Your task to perform on an android device: Search for pizza restaurants on Maps Image 0: 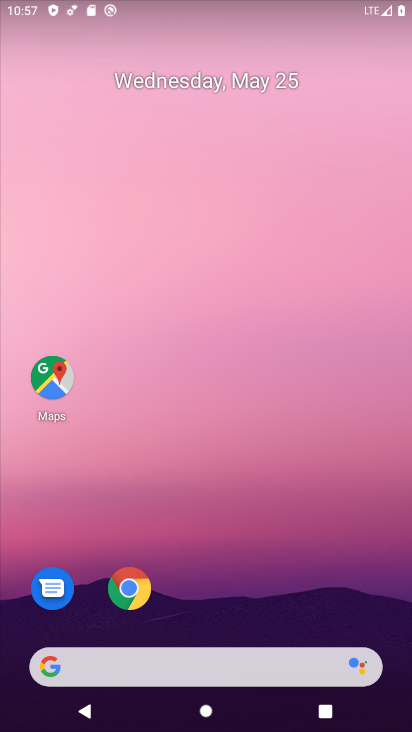
Step 0: click (54, 372)
Your task to perform on an android device: Search for pizza restaurants on Maps Image 1: 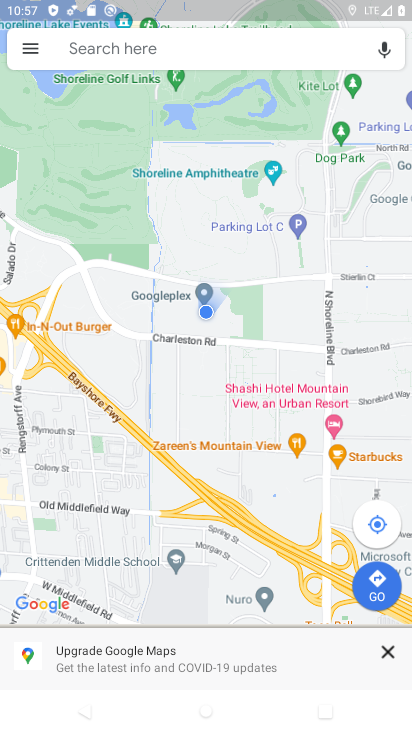
Step 1: click (180, 50)
Your task to perform on an android device: Search for pizza restaurants on Maps Image 2: 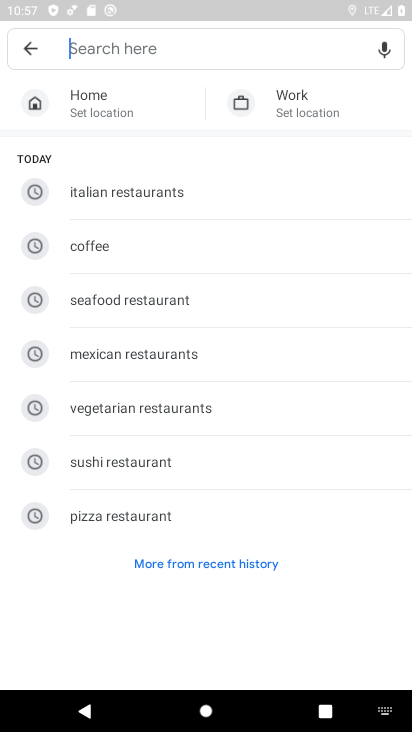
Step 2: click (81, 521)
Your task to perform on an android device: Search for pizza restaurants on Maps Image 3: 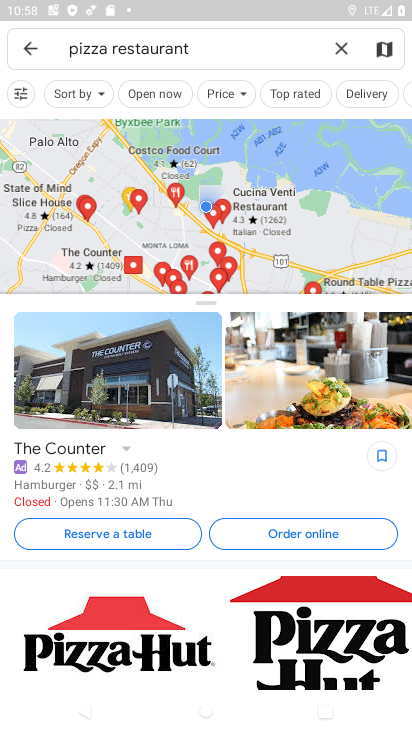
Step 3: task complete